Your task to perform on an android device: Clear the cart on walmart.com. Search for "apple airpods" on walmart.com, select the first entry, and add it to the cart. Image 0: 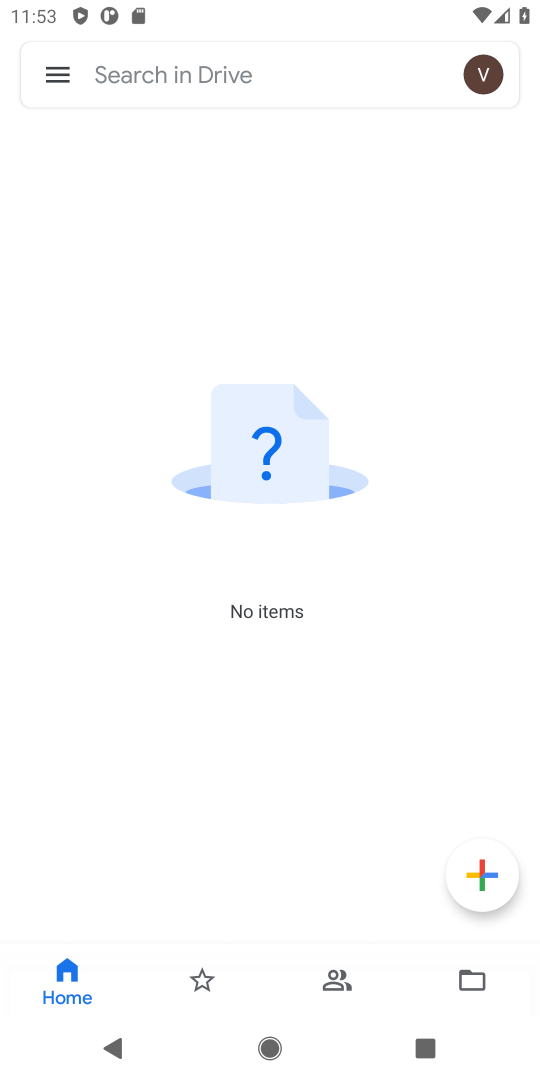
Step 0: press home button
Your task to perform on an android device: Clear the cart on walmart.com. Search for "apple airpods" on walmart.com, select the first entry, and add it to the cart. Image 1: 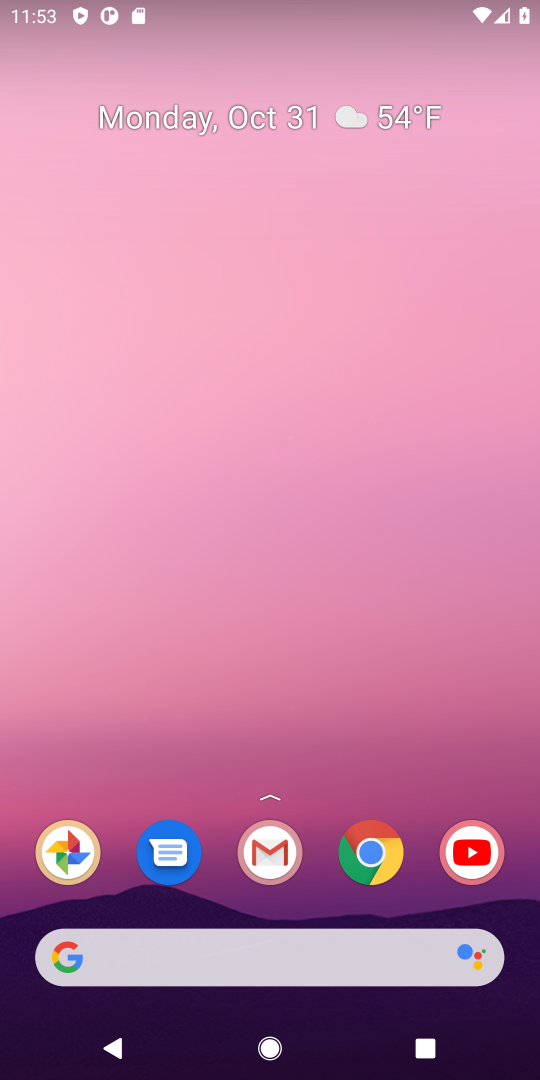
Step 1: click (374, 870)
Your task to perform on an android device: Clear the cart on walmart.com. Search for "apple airpods" on walmart.com, select the first entry, and add it to the cart. Image 2: 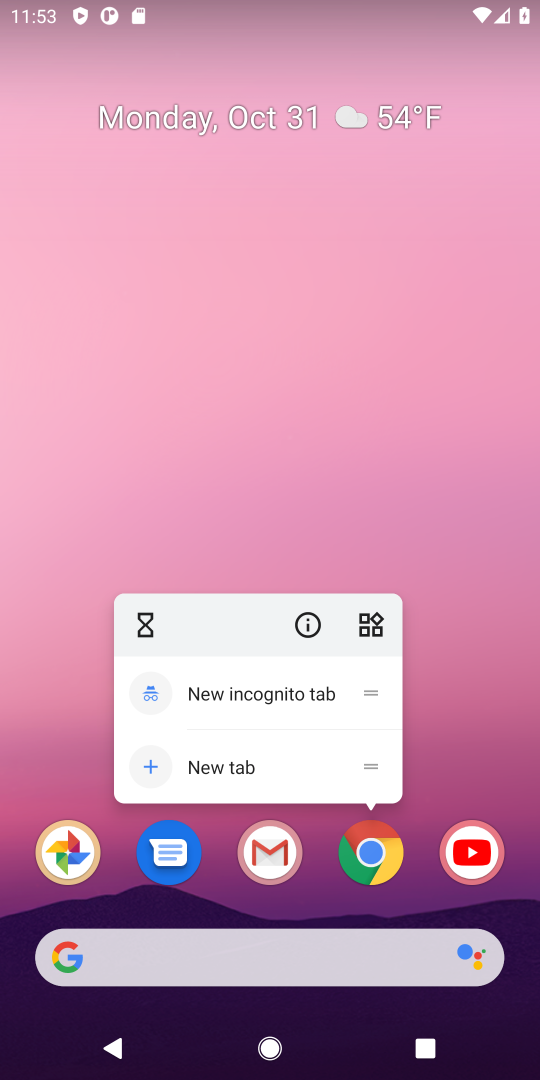
Step 2: click (375, 858)
Your task to perform on an android device: Clear the cart on walmart.com. Search for "apple airpods" on walmart.com, select the first entry, and add it to the cart. Image 3: 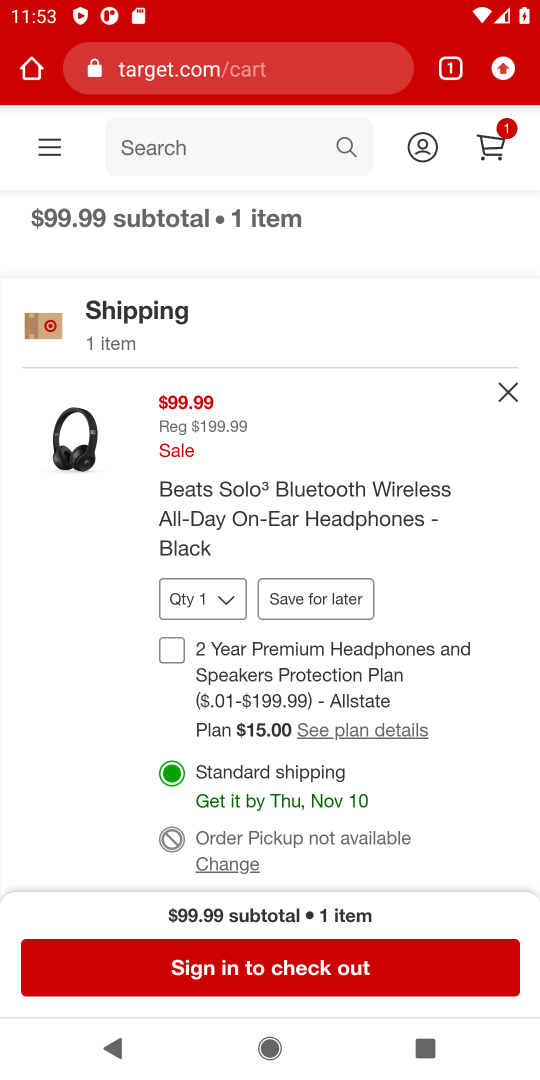
Step 3: click (253, 78)
Your task to perform on an android device: Clear the cart on walmart.com. Search for "apple airpods" on walmart.com, select the first entry, and add it to the cart. Image 4: 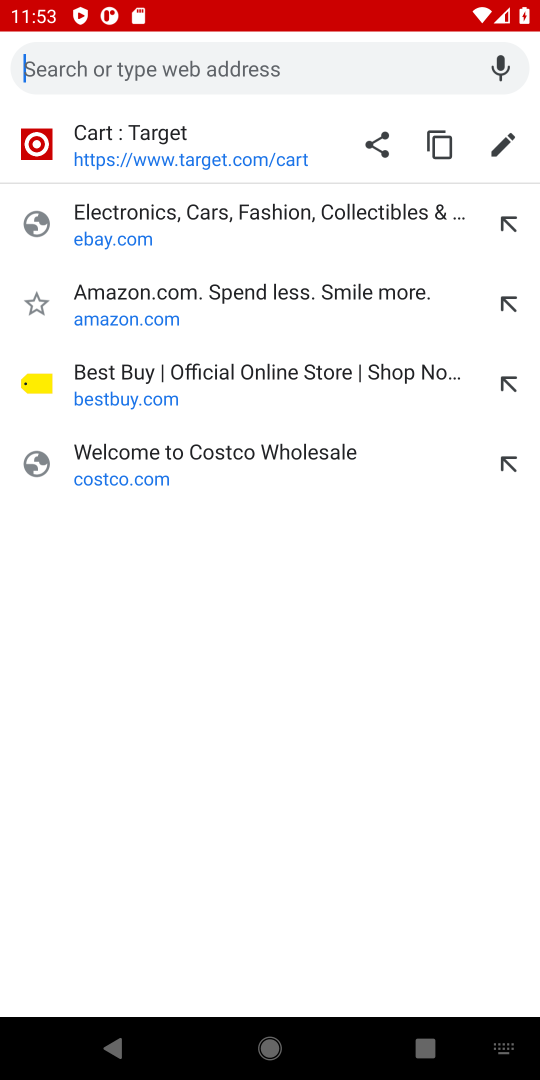
Step 4: type "walmart.com"
Your task to perform on an android device: Clear the cart on walmart.com. Search for "apple airpods" on walmart.com, select the first entry, and add it to the cart. Image 5: 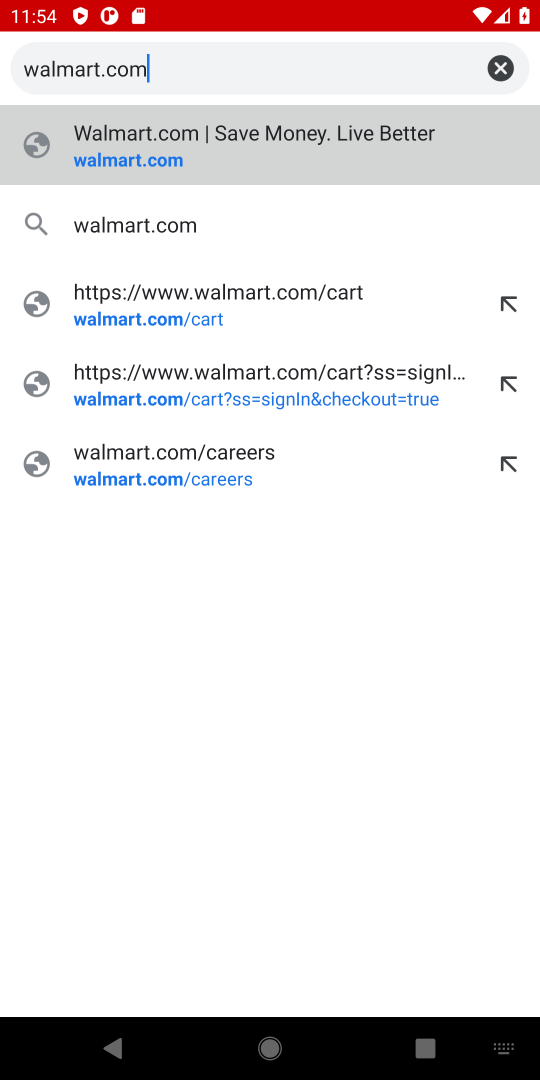
Step 5: type ""
Your task to perform on an android device: Clear the cart on walmart.com. Search for "apple airpods" on walmart.com, select the first entry, and add it to the cart. Image 6: 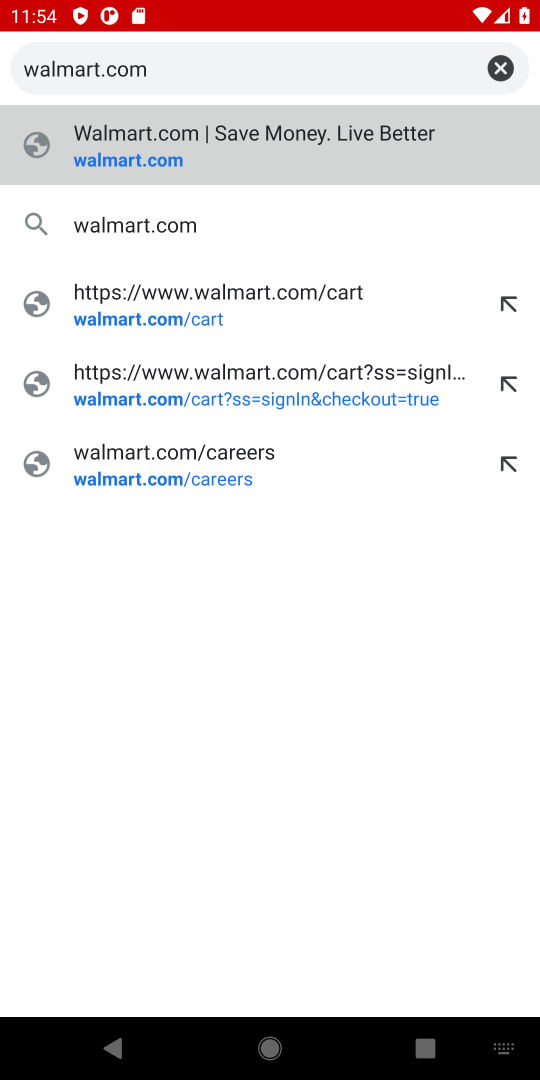
Step 6: press enter
Your task to perform on an android device: Clear the cart on walmart.com. Search for "apple airpods" on walmart.com, select the first entry, and add it to the cart. Image 7: 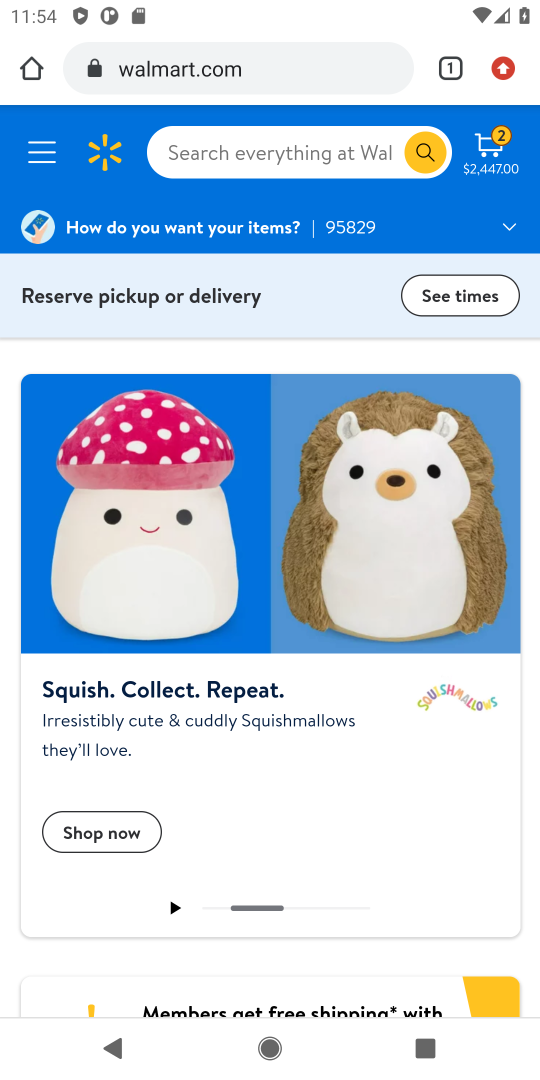
Step 7: click (221, 153)
Your task to perform on an android device: Clear the cart on walmart.com. Search for "apple airpods" on walmart.com, select the first entry, and add it to the cart. Image 8: 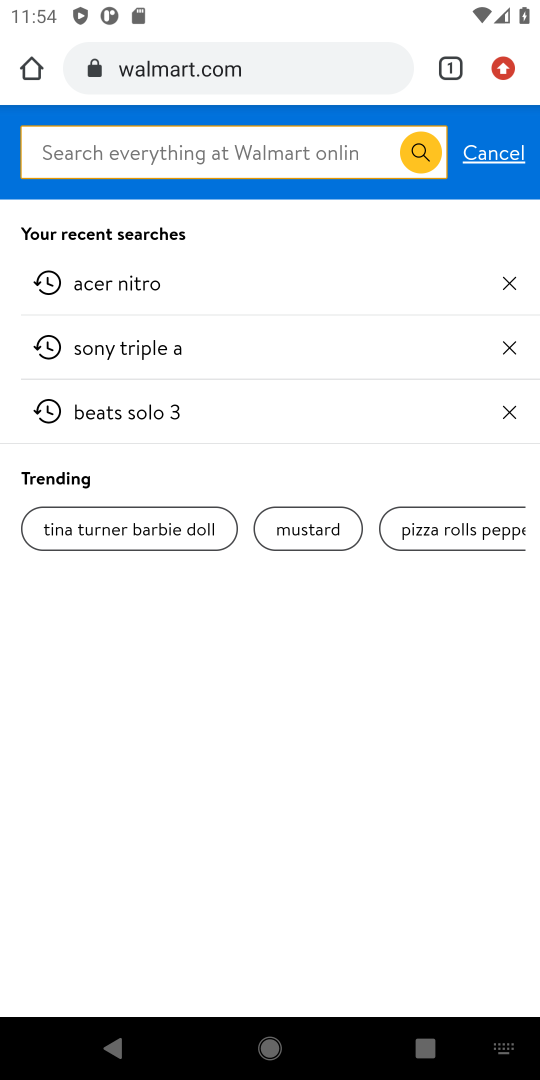
Step 8: type "apple airpods"
Your task to perform on an android device: Clear the cart on walmart.com. Search for "apple airpods" on walmart.com, select the first entry, and add it to the cart. Image 9: 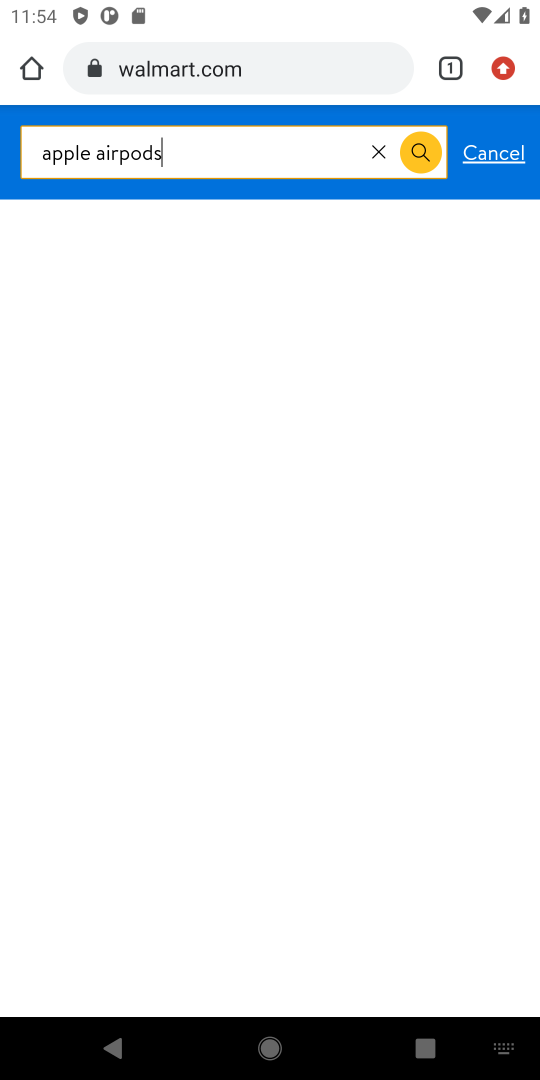
Step 9: type ""
Your task to perform on an android device: Clear the cart on walmart.com. Search for "apple airpods" on walmart.com, select the first entry, and add it to the cart. Image 10: 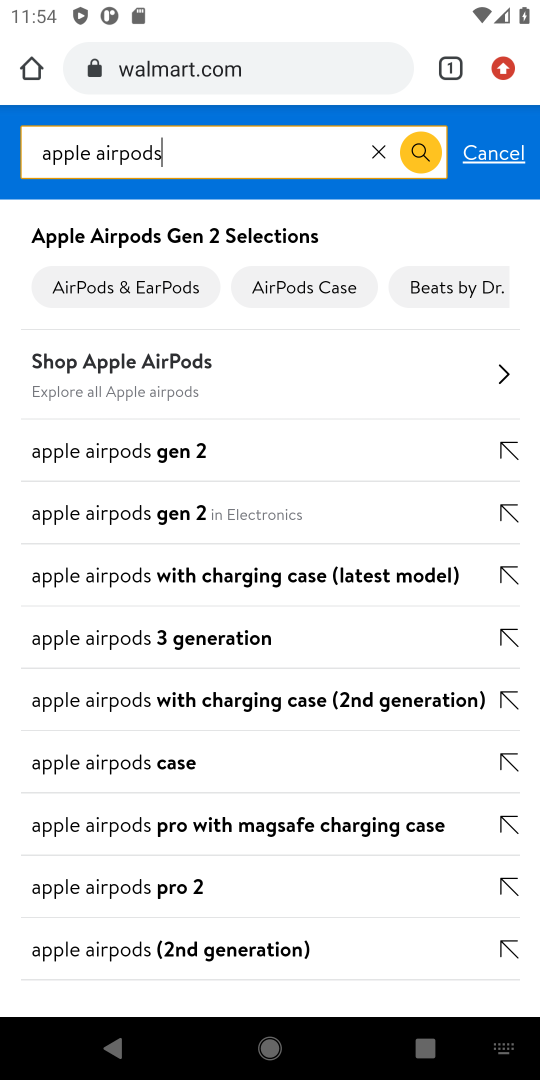
Step 10: press enter
Your task to perform on an android device: Clear the cart on walmart.com. Search for "apple airpods" on walmart.com, select the first entry, and add it to the cart. Image 11: 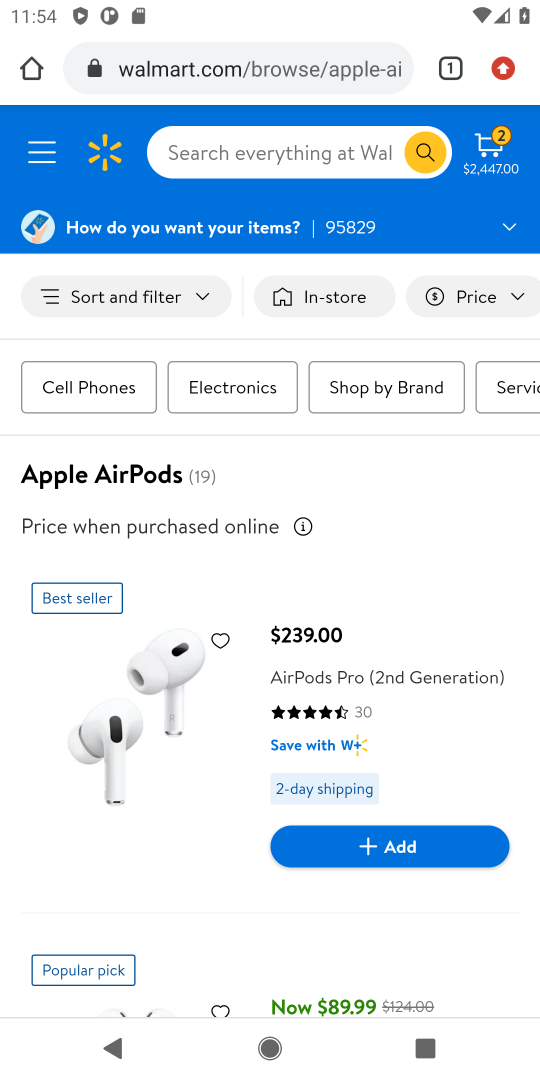
Step 11: click (406, 853)
Your task to perform on an android device: Clear the cart on walmart.com. Search for "apple airpods" on walmart.com, select the first entry, and add it to the cart. Image 12: 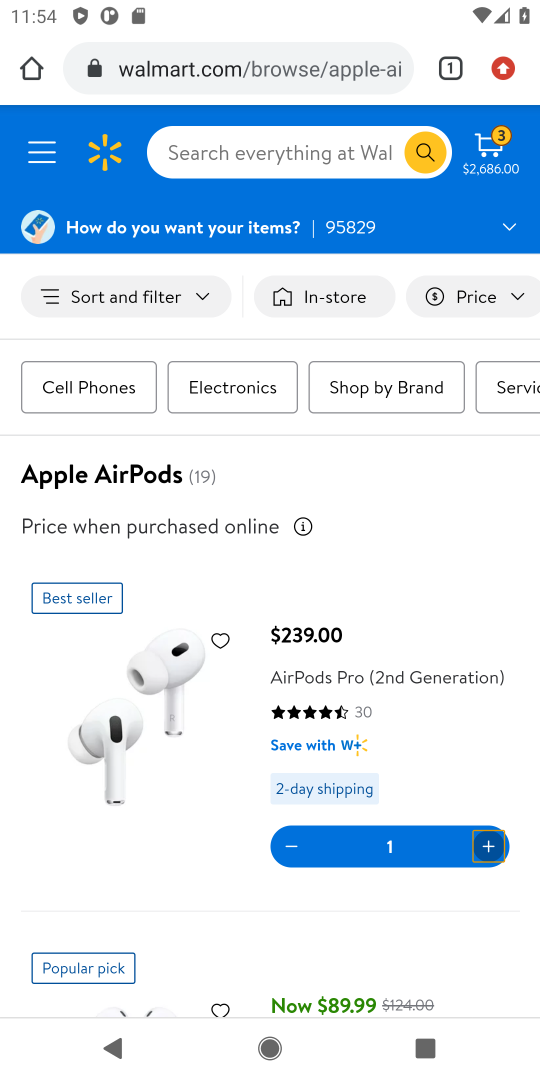
Step 12: click (285, 852)
Your task to perform on an android device: Clear the cart on walmart.com. Search for "apple airpods" on walmart.com, select the first entry, and add it to the cart. Image 13: 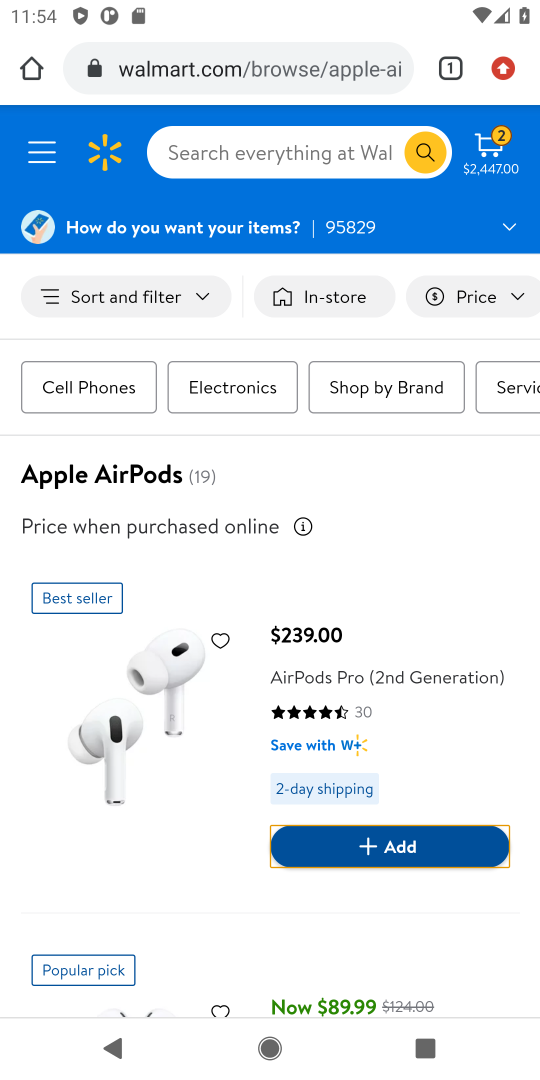
Step 13: click (315, 665)
Your task to perform on an android device: Clear the cart on walmart.com. Search for "apple airpods" on walmart.com, select the first entry, and add it to the cart. Image 14: 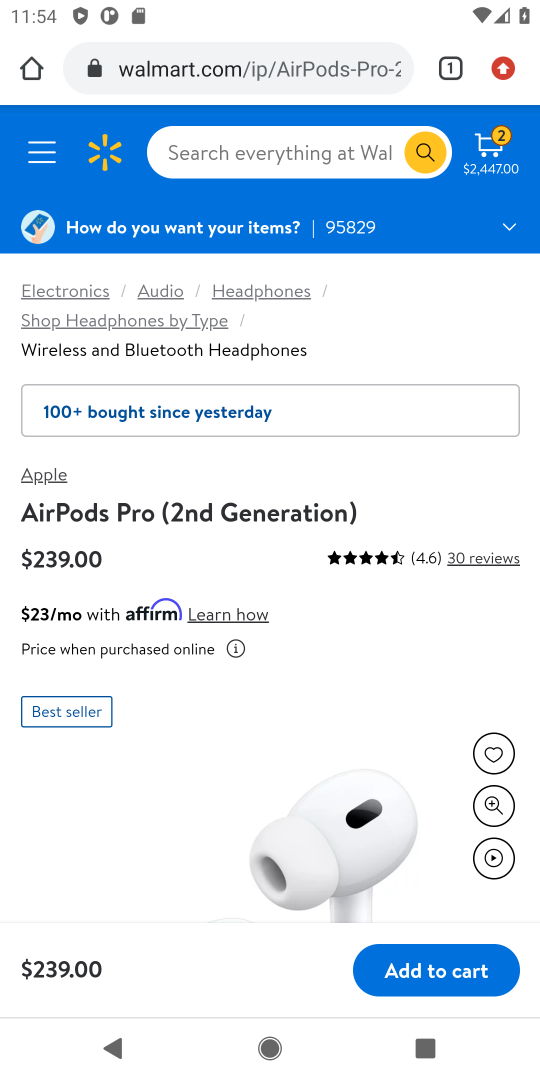
Step 14: click (455, 979)
Your task to perform on an android device: Clear the cart on walmart.com. Search for "apple airpods" on walmart.com, select the first entry, and add it to the cart. Image 15: 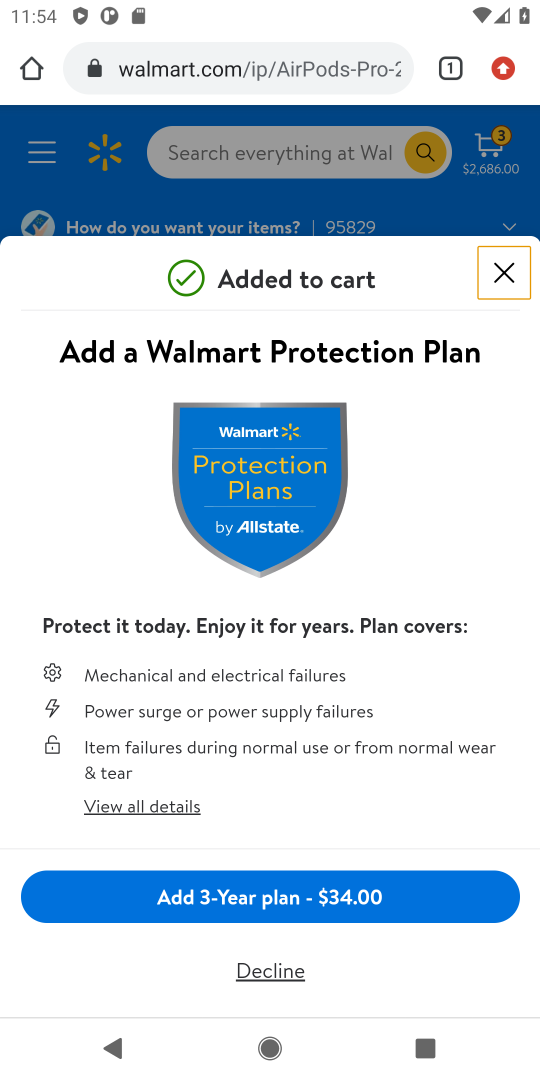
Step 15: click (286, 970)
Your task to perform on an android device: Clear the cart on walmart.com. Search for "apple airpods" on walmart.com, select the first entry, and add it to the cart. Image 16: 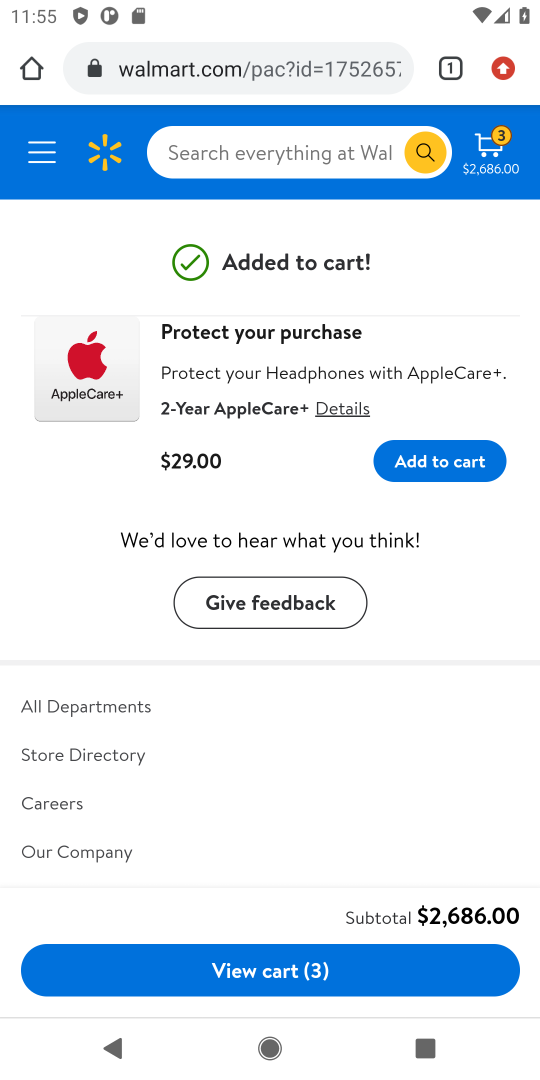
Step 16: task complete